Your task to perform on an android device: Open maps Image 0: 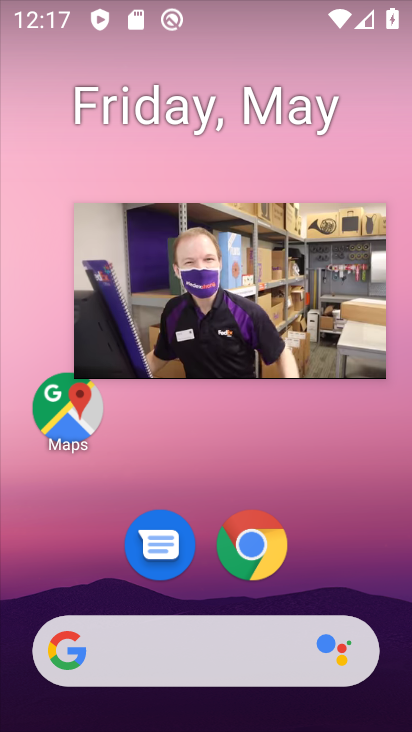
Step 0: click (278, 294)
Your task to perform on an android device: Open maps Image 1: 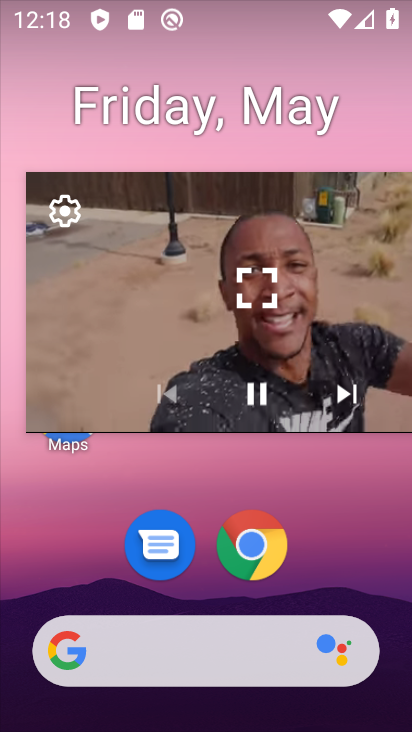
Step 1: click (385, 190)
Your task to perform on an android device: Open maps Image 2: 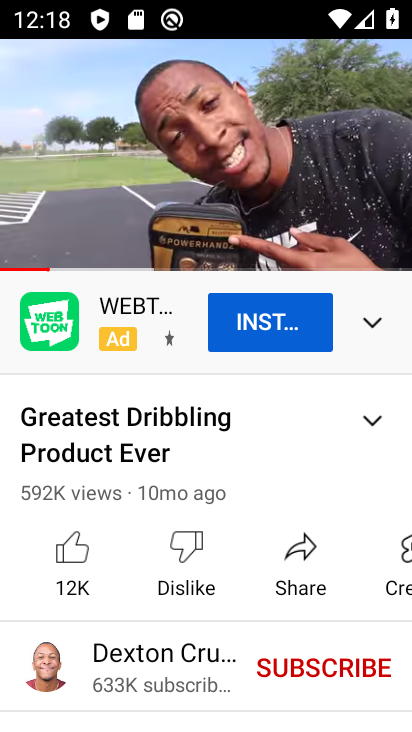
Step 2: click (384, 189)
Your task to perform on an android device: Open maps Image 3: 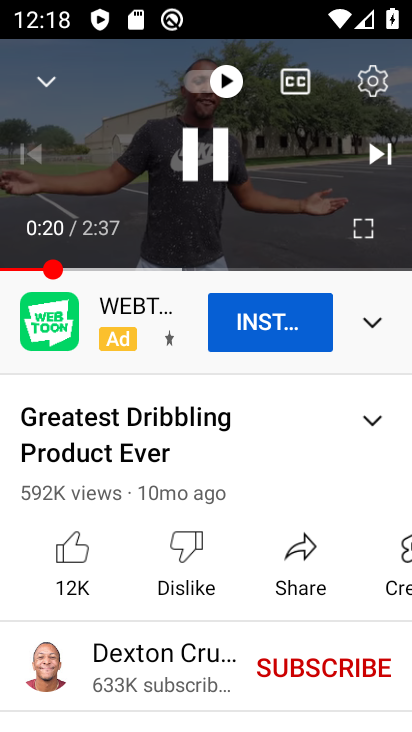
Step 3: click (196, 157)
Your task to perform on an android device: Open maps Image 4: 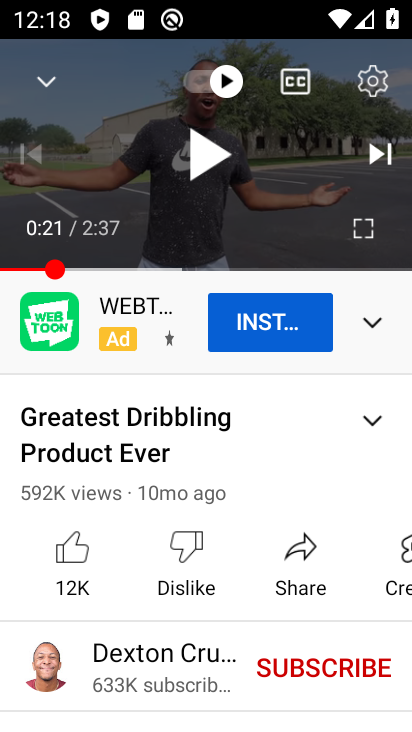
Step 4: press back button
Your task to perform on an android device: Open maps Image 5: 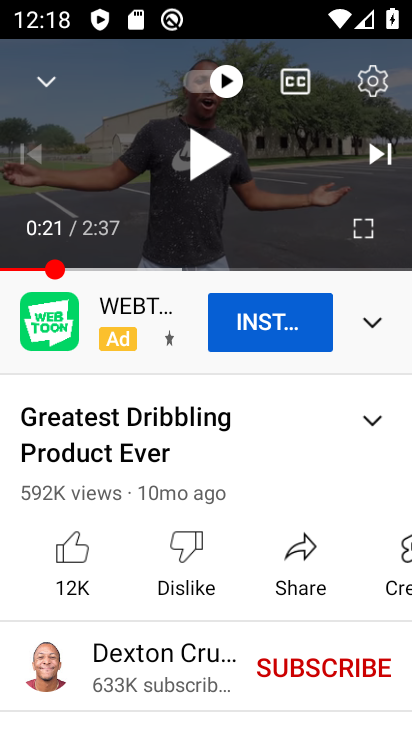
Step 5: press back button
Your task to perform on an android device: Open maps Image 6: 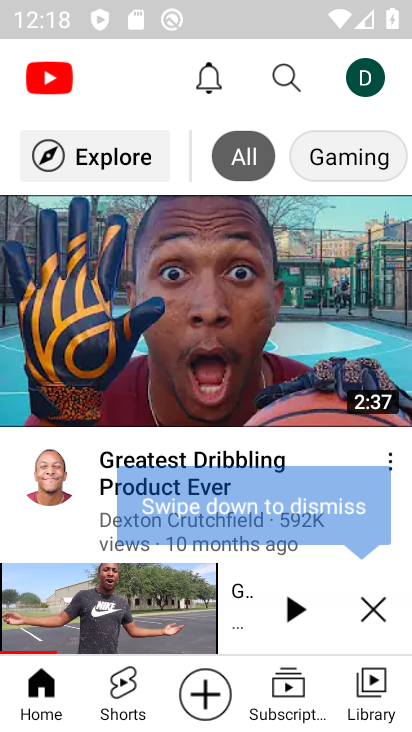
Step 6: press back button
Your task to perform on an android device: Open maps Image 7: 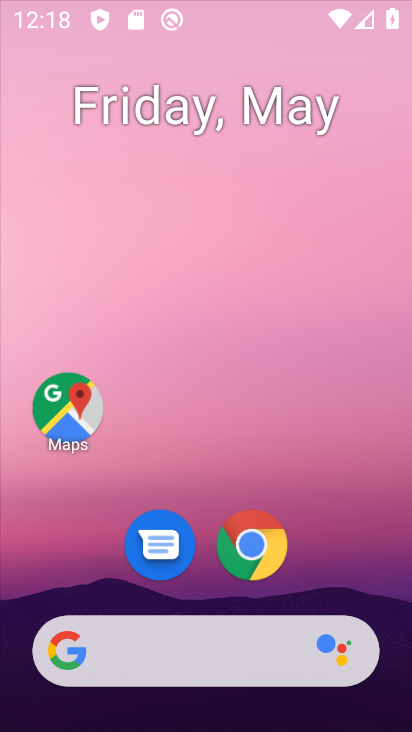
Step 7: press back button
Your task to perform on an android device: Open maps Image 8: 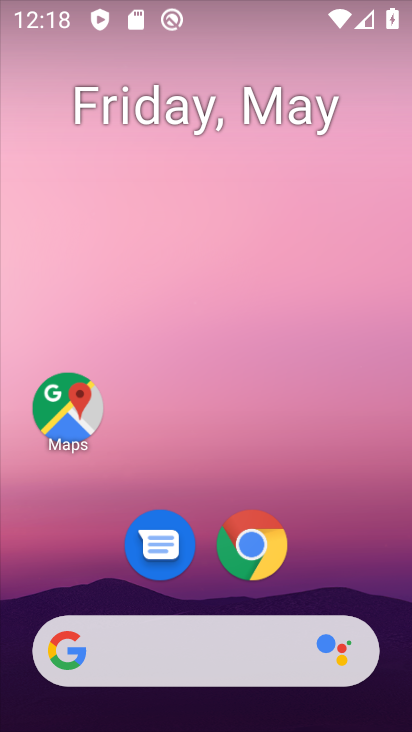
Step 8: click (73, 409)
Your task to perform on an android device: Open maps Image 9: 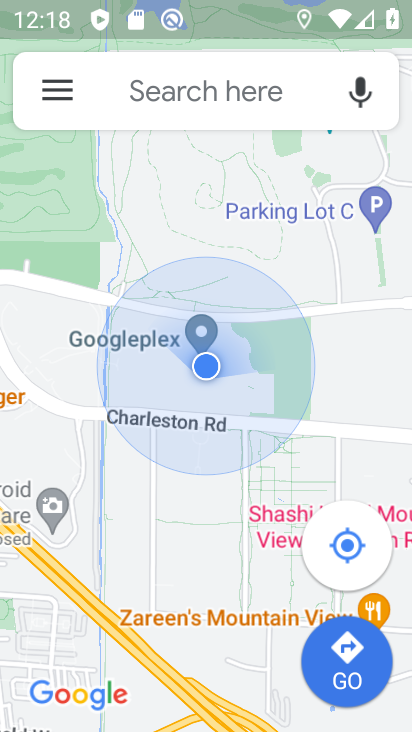
Step 9: task complete